Your task to perform on an android device: open device folders in google photos Image 0: 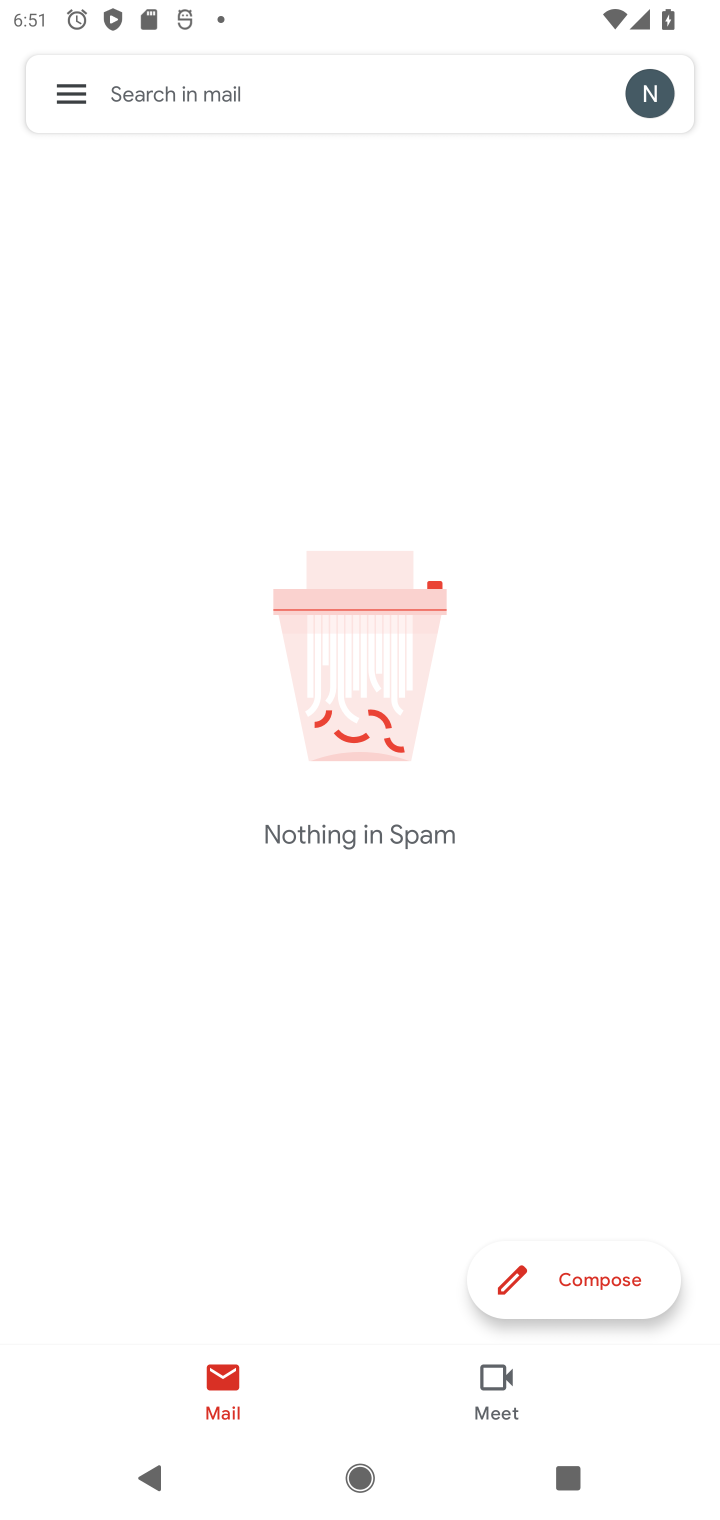
Step 0: press home button
Your task to perform on an android device: open device folders in google photos Image 1: 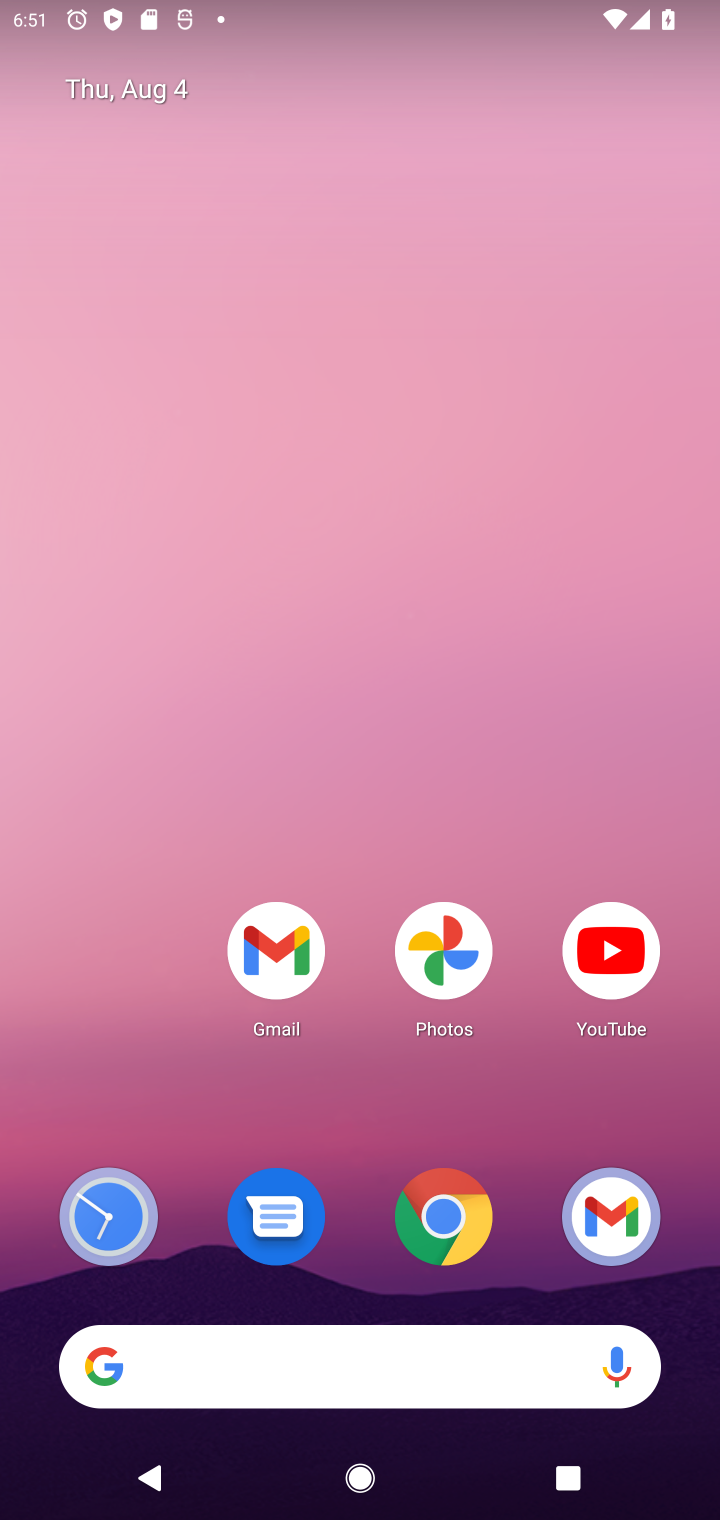
Step 1: click (431, 957)
Your task to perform on an android device: open device folders in google photos Image 2: 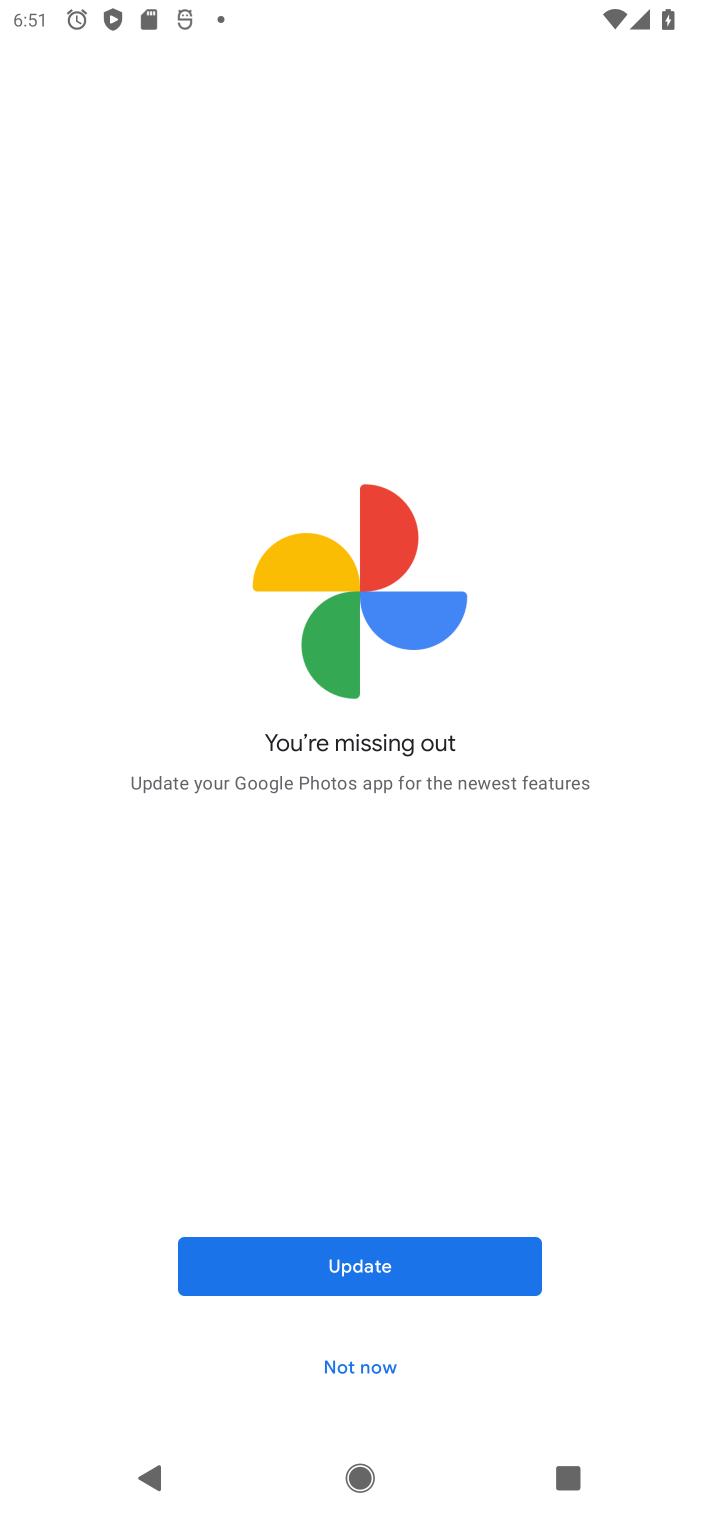
Step 2: click (382, 1270)
Your task to perform on an android device: open device folders in google photos Image 3: 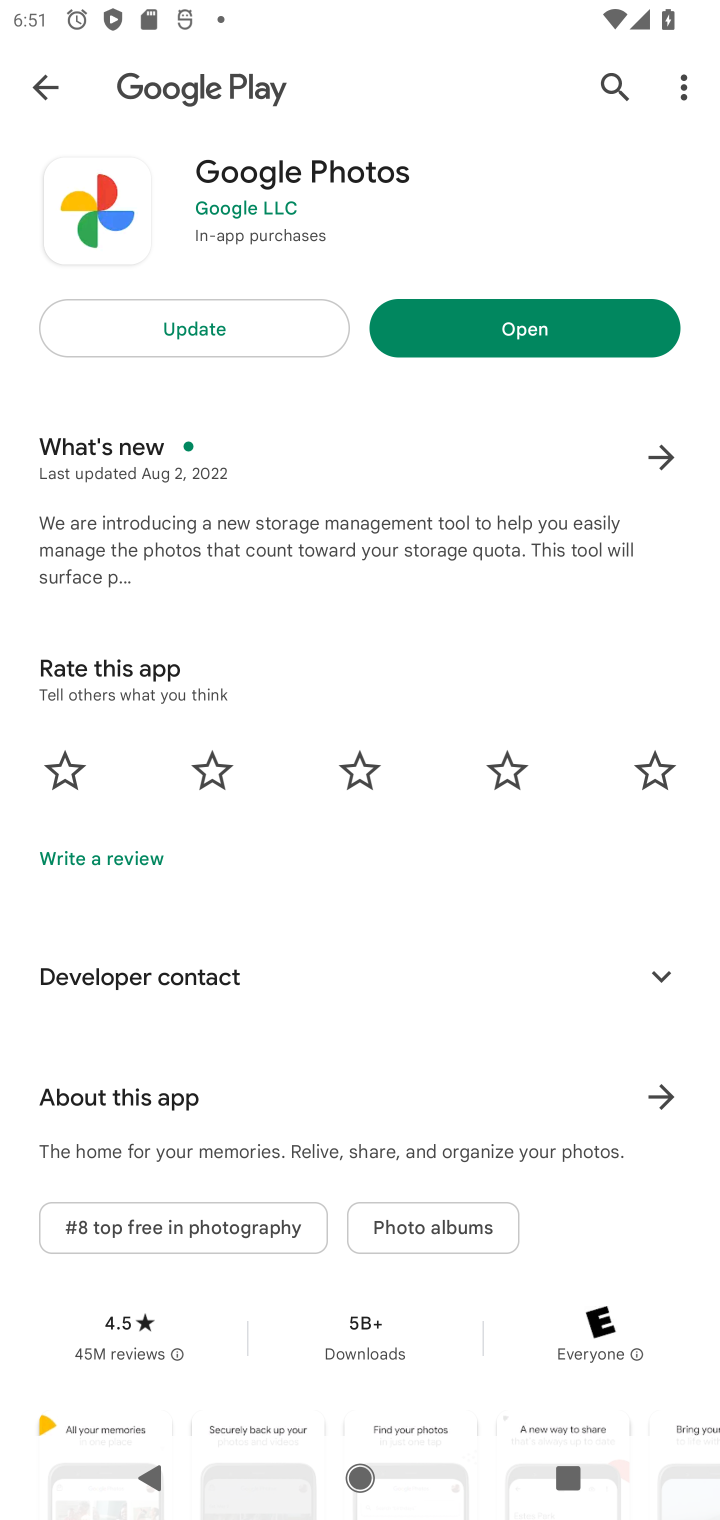
Step 3: click (276, 328)
Your task to perform on an android device: open device folders in google photos Image 4: 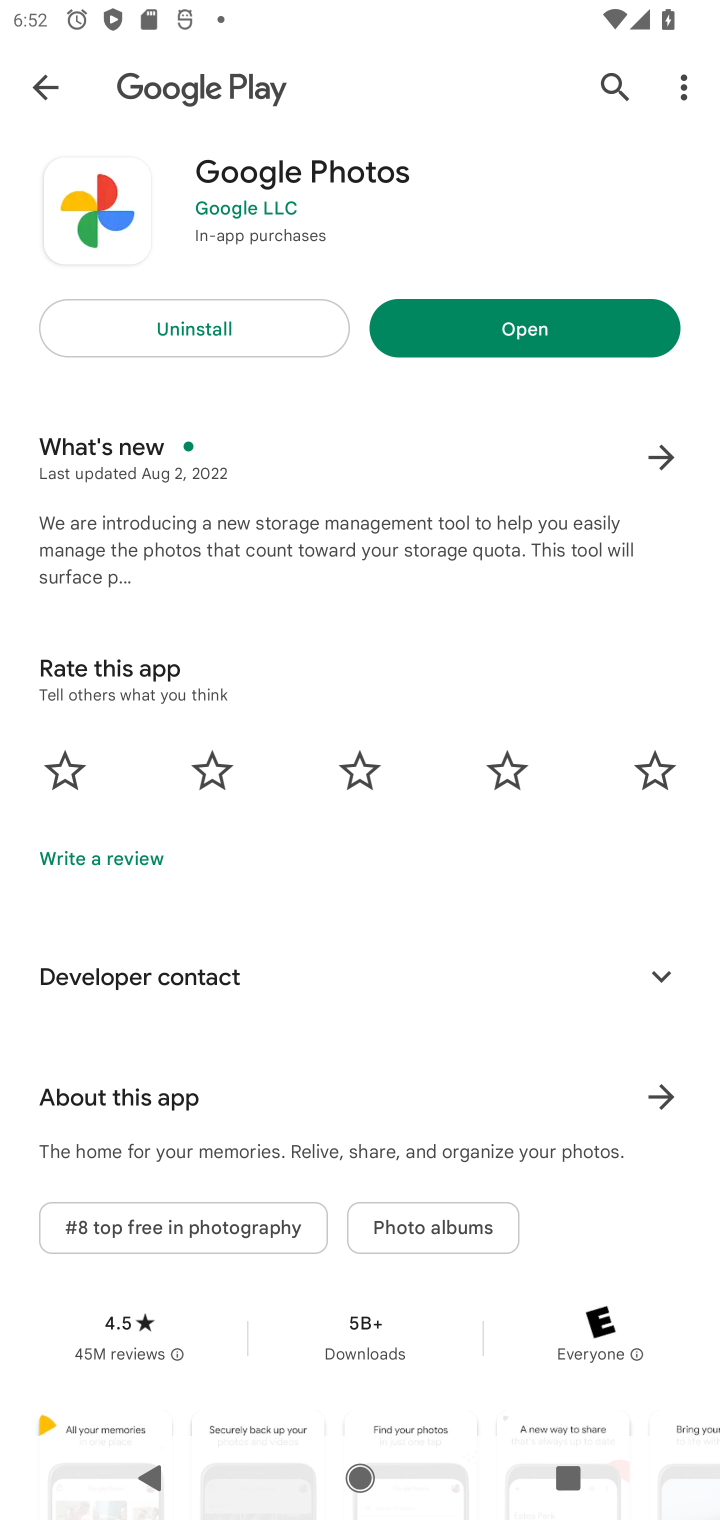
Step 4: click (574, 315)
Your task to perform on an android device: open device folders in google photos Image 5: 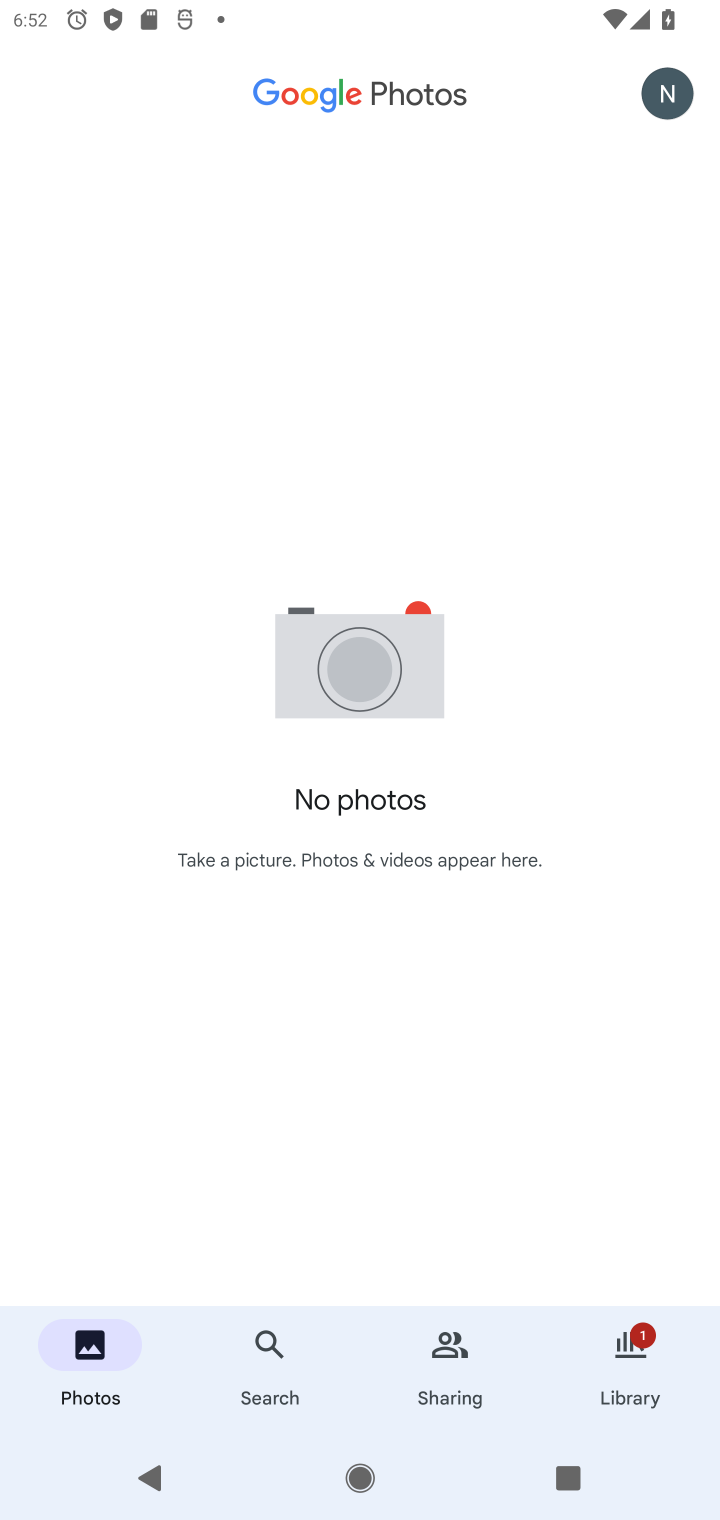
Step 5: click (176, 71)
Your task to perform on an android device: open device folders in google photos Image 6: 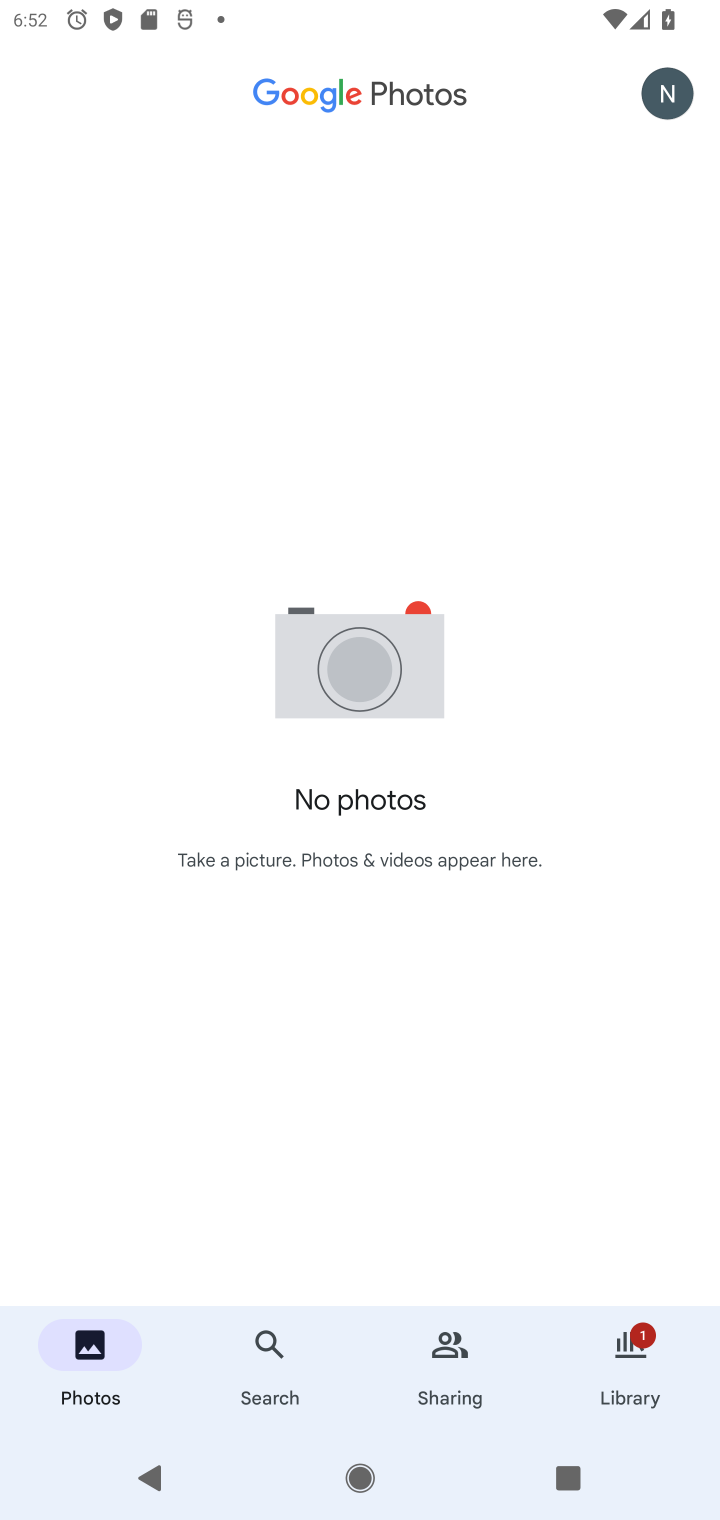
Step 6: click (0, 508)
Your task to perform on an android device: open device folders in google photos Image 7: 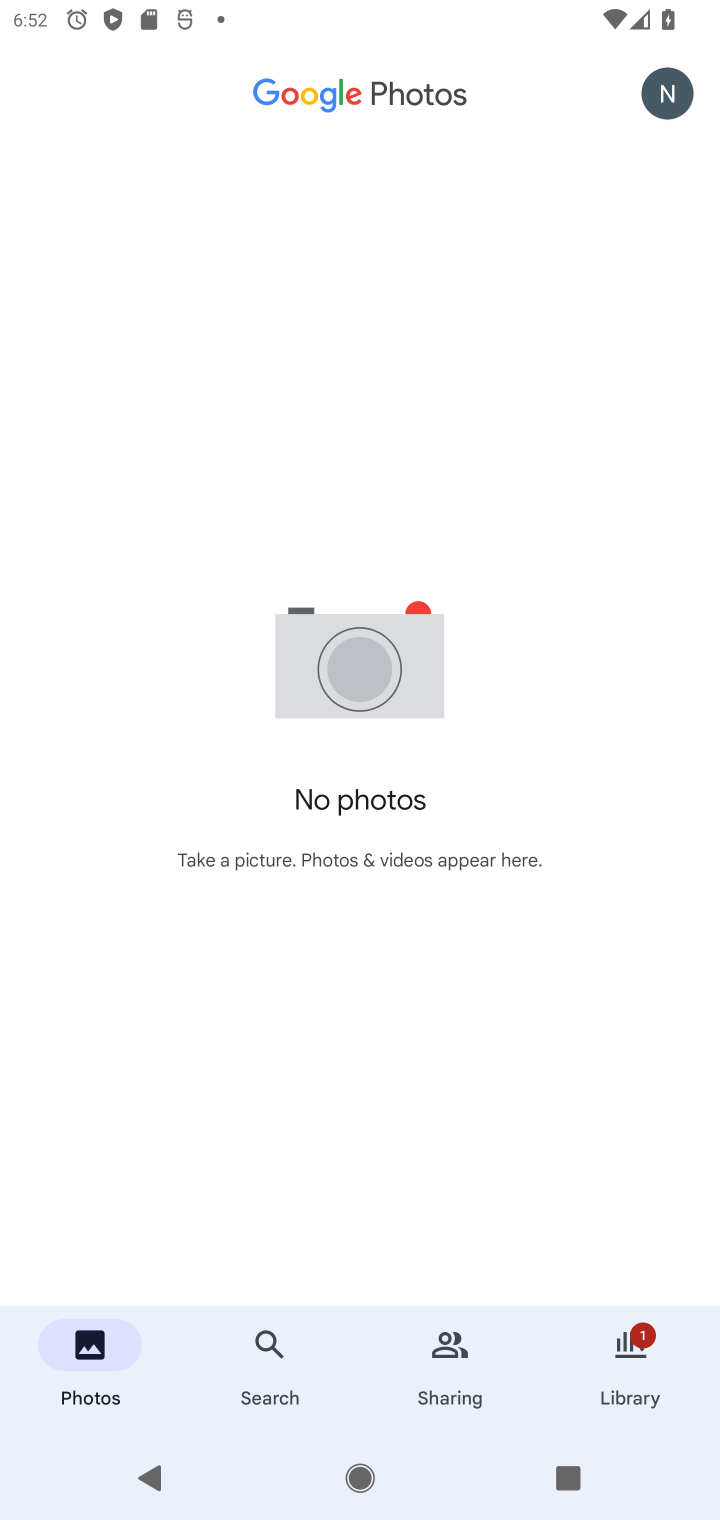
Step 7: drag from (4, 509) to (708, 492)
Your task to perform on an android device: open device folders in google photos Image 8: 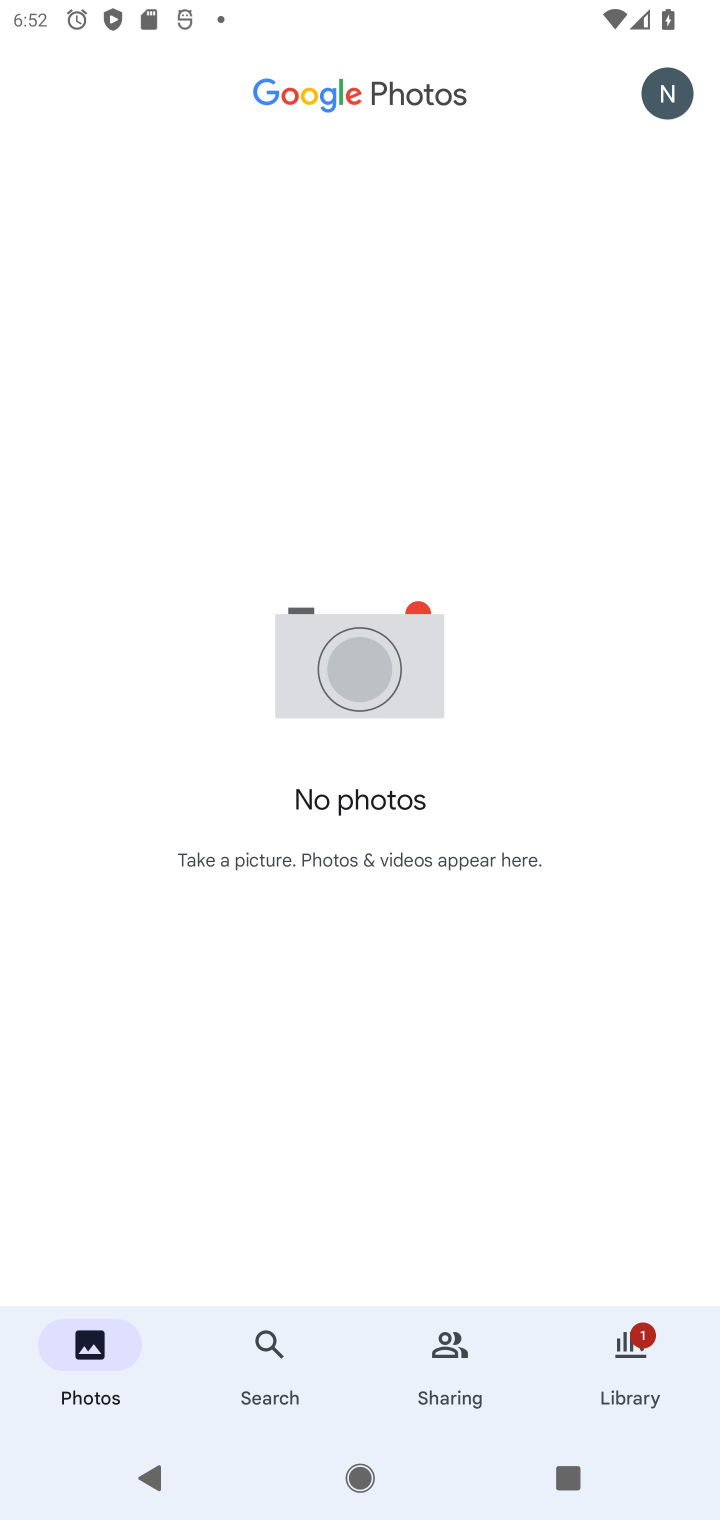
Step 8: click (638, 1376)
Your task to perform on an android device: open device folders in google photos Image 9: 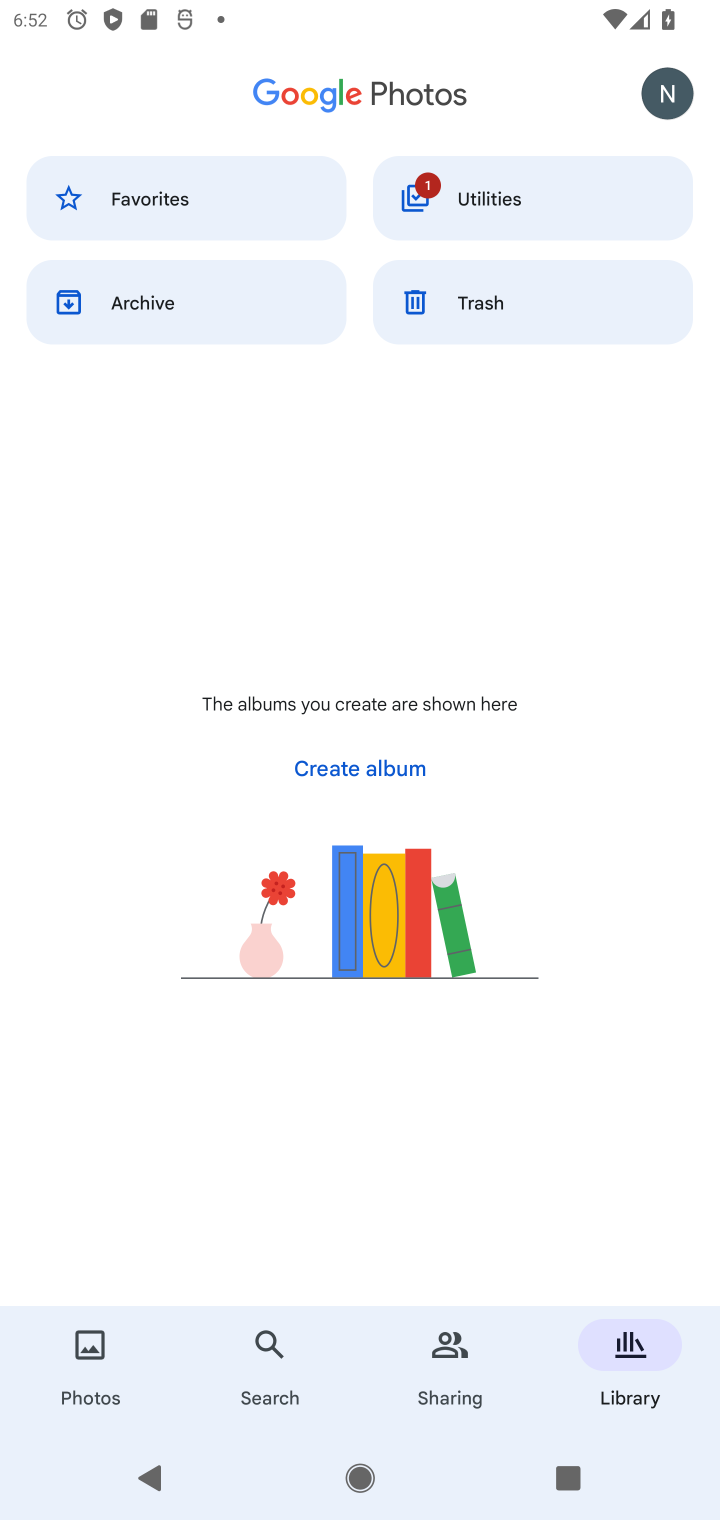
Step 9: click (441, 1345)
Your task to perform on an android device: open device folders in google photos Image 10: 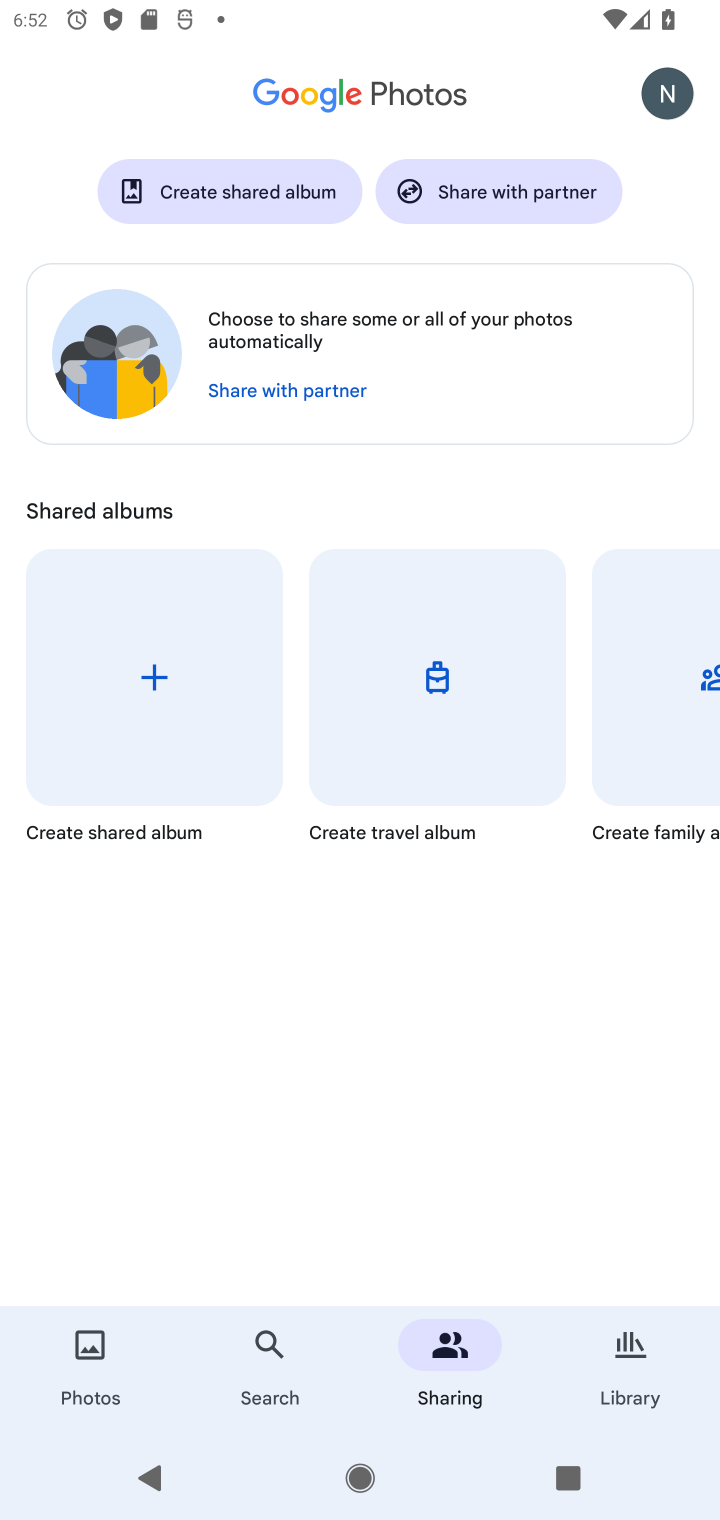
Step 10: click (603, 1350)
Your task to perform on an android device: open device folders in google photos Image 11: 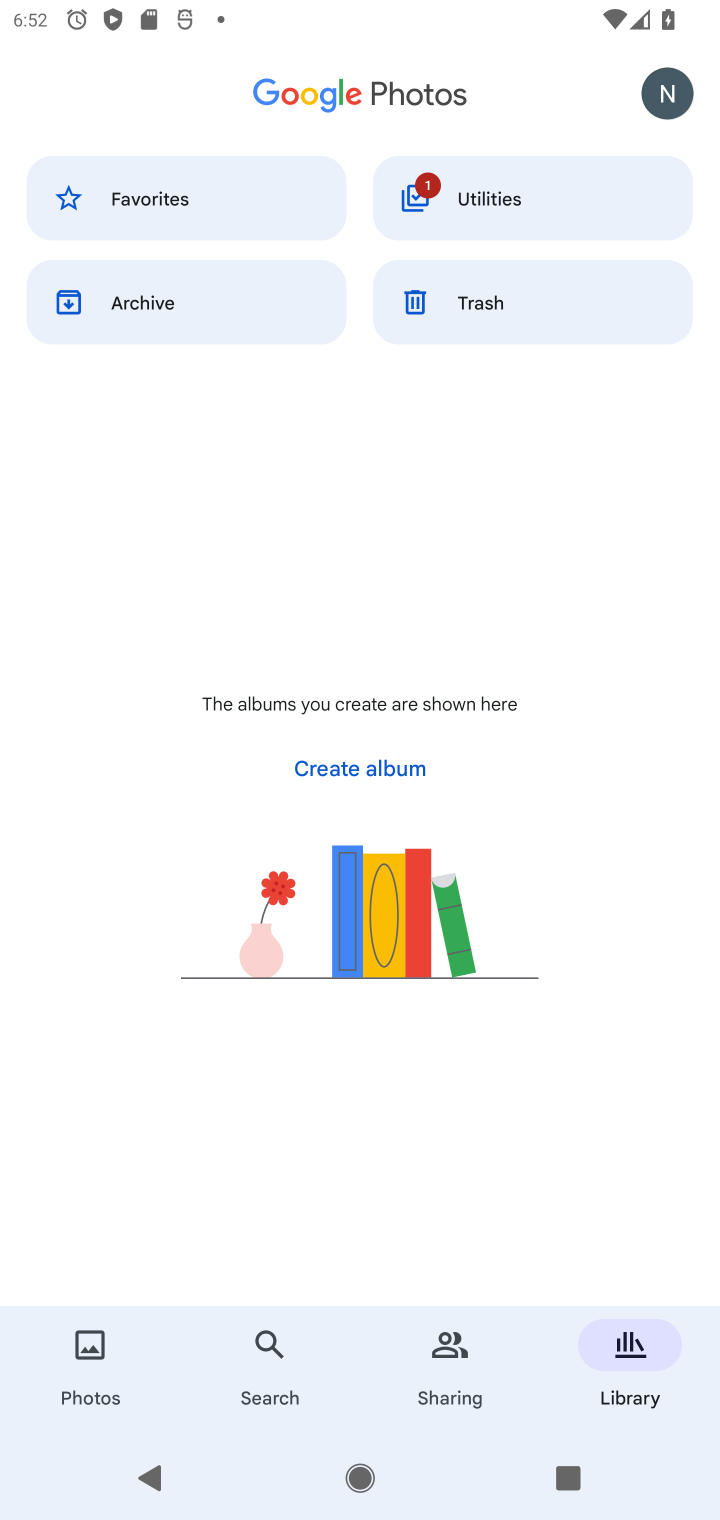
Step 11: click (648, 72)
Your task to perform on an android device: open device folders in google photos Image 12: 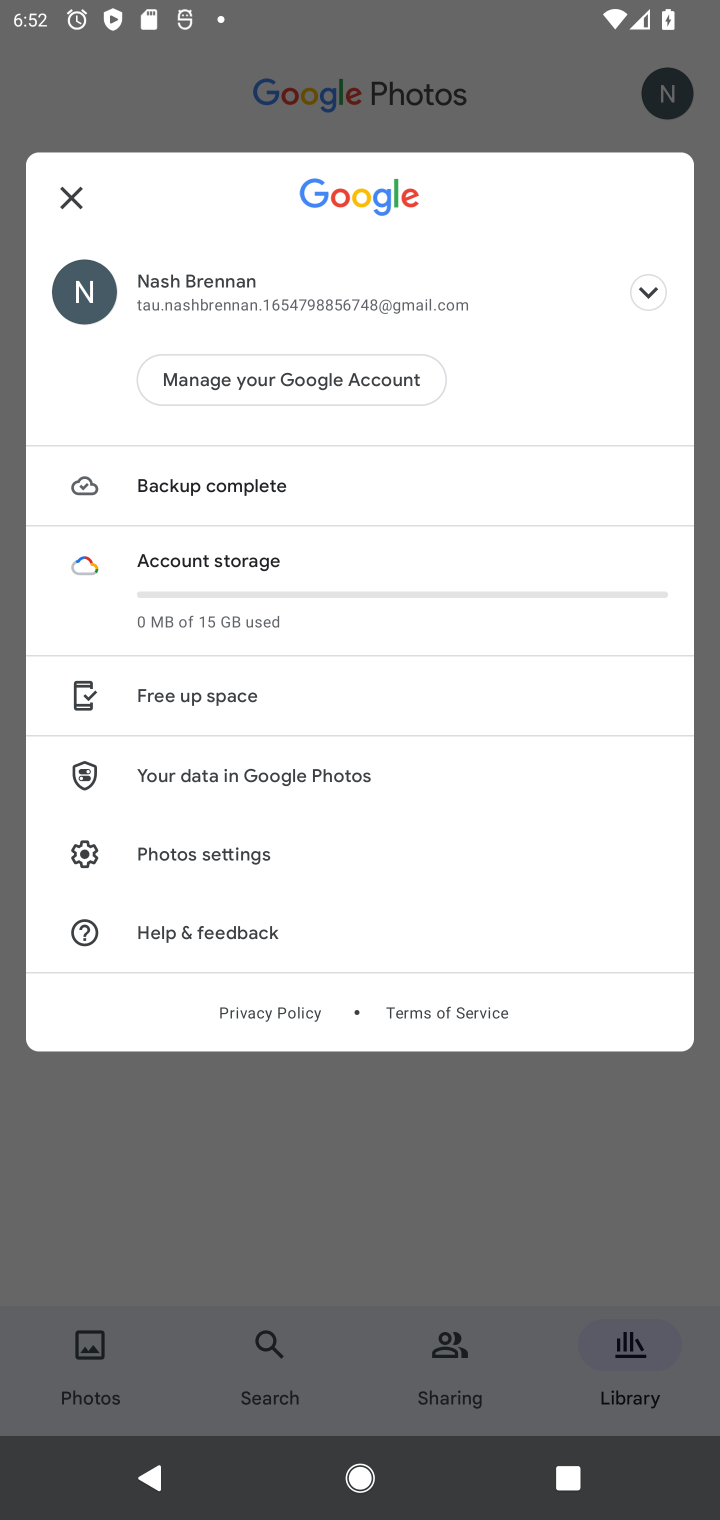
Step 12: click (495, 114)
Your task to perform on an android device: open device folders in google photos Image 13: 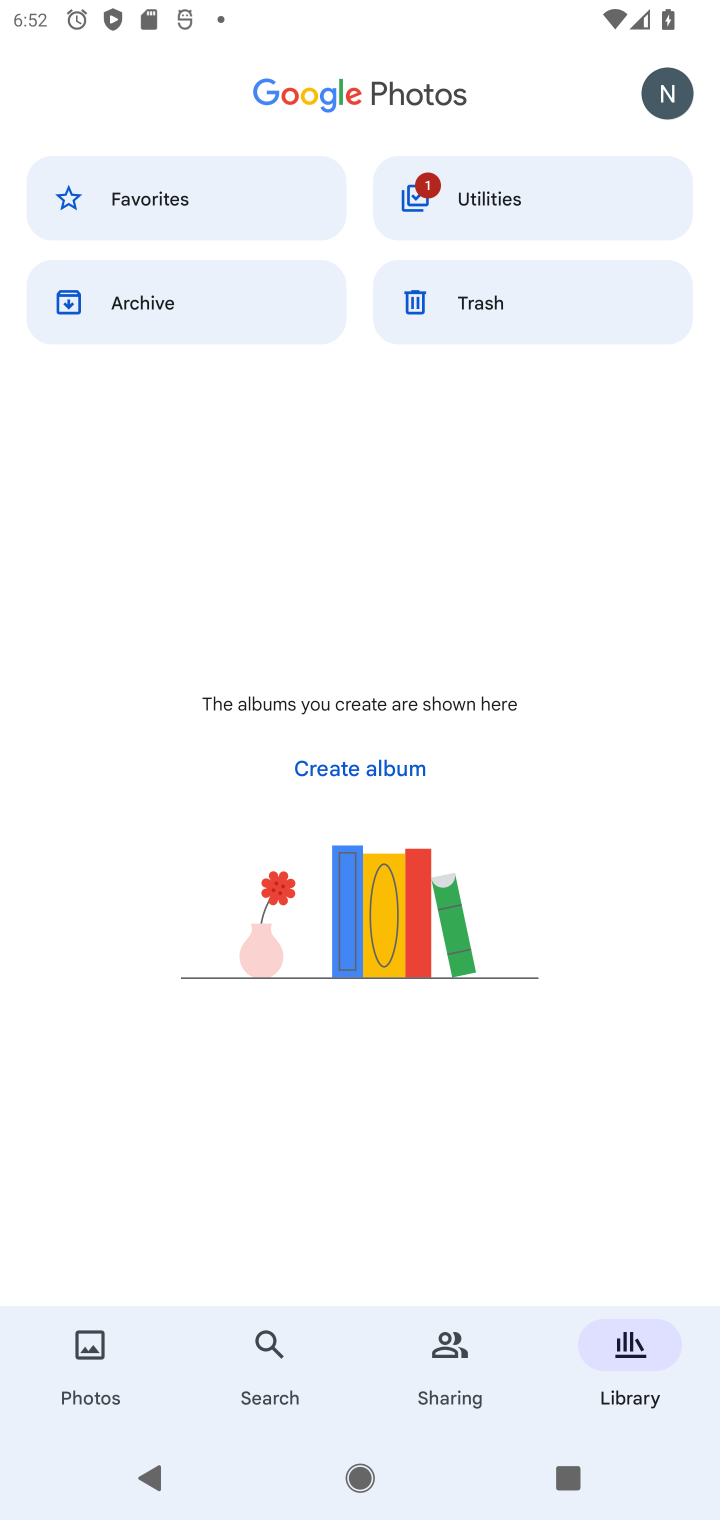
Step 13: click (543, 191)
Your task to perform on an android device: open device folders in google photos Image 14: 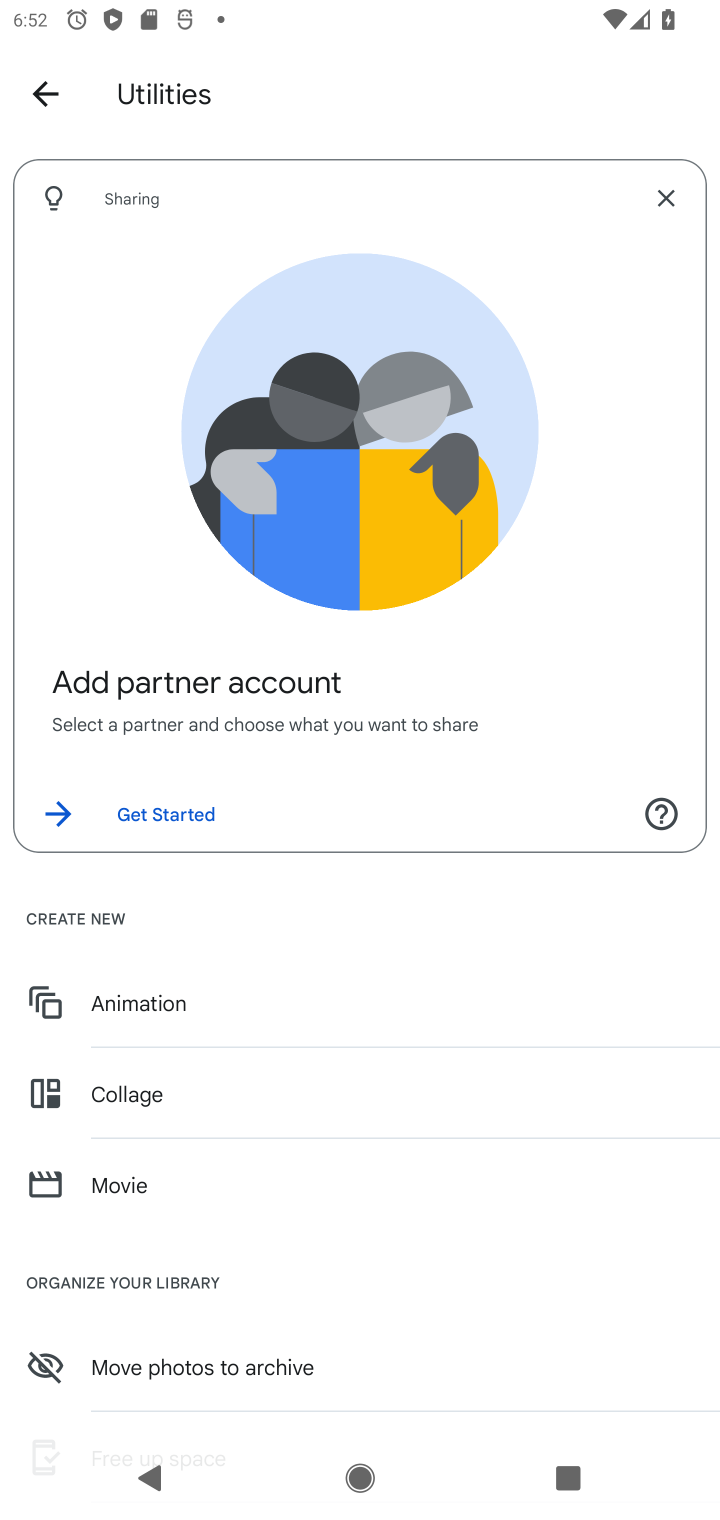
Step 14: task complete